Your task to perform on an android device: Go to display settings Image 0: 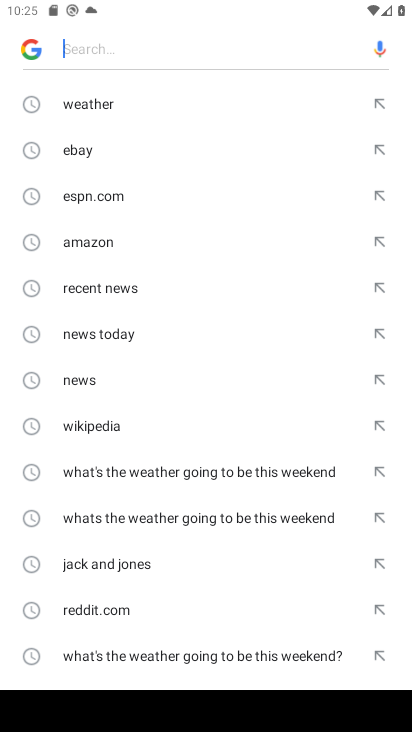
Step 0: press home button
Your task to perform on an android device: Go to display settings Image 1: 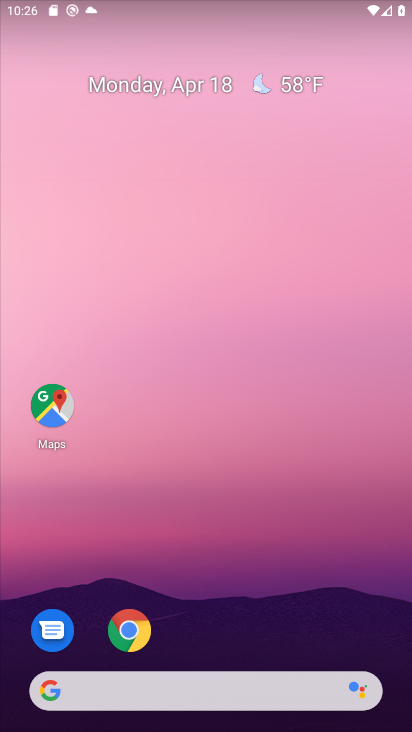
Step 1: drag from (208, 664) to (123, 95)
Your task to perform on an android device: Go to display settings Image 2: 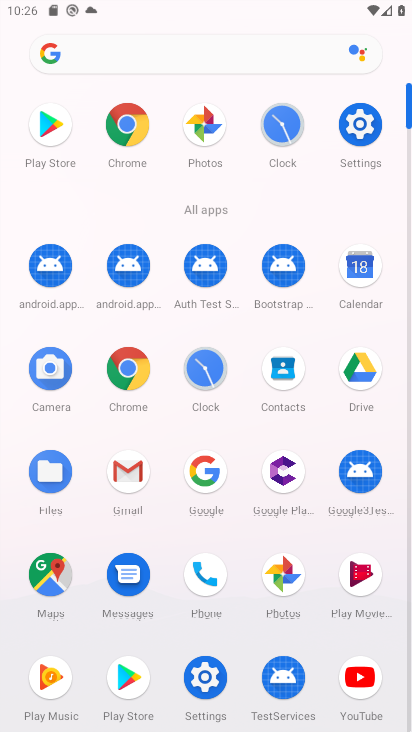
Step 2: click (357, 131)
Your task to perform on an android device: Go to display settings Image 3: 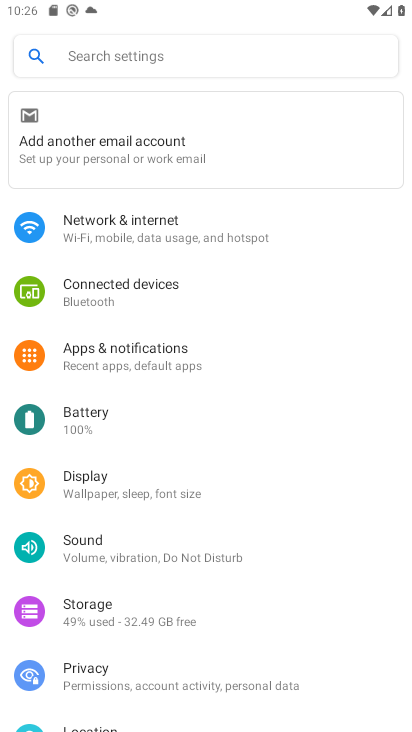
Step 3: click (110, 495)
Your task to perform on an android device: Go to display settings Image 4: 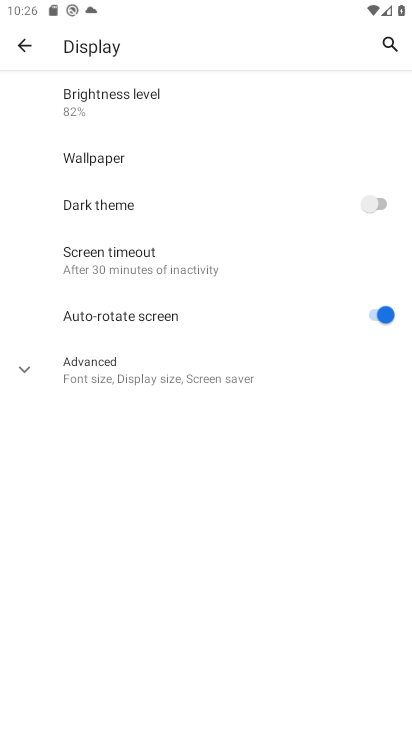
Step 4: click (147, 373)
Your task to perform on an android device: Go to display settings Image 5: 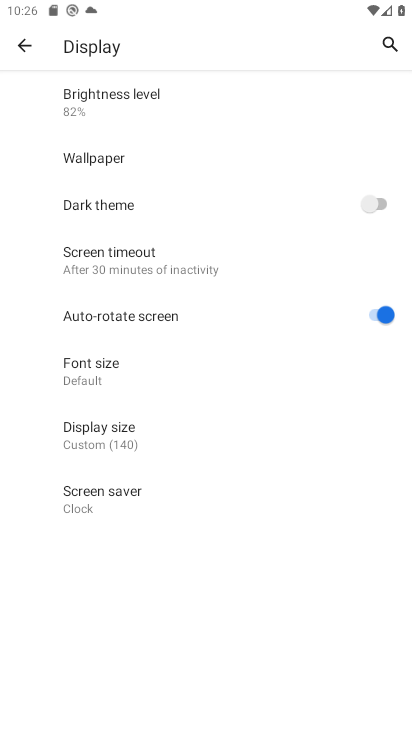
Step 5: task complete